Your task to perform on an android device: all mails in gmail Image 0: 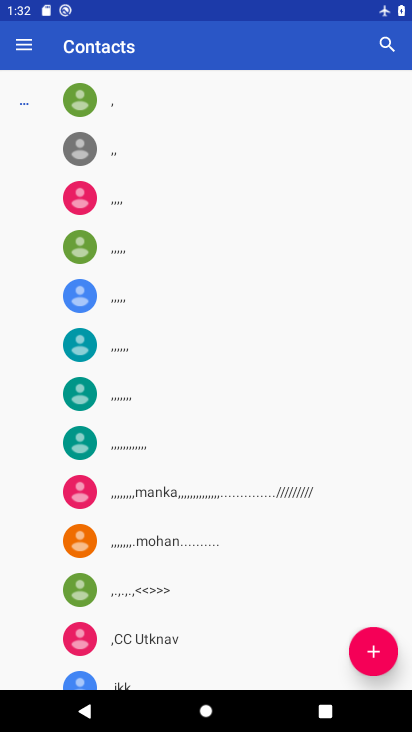
Step 0: press home button
Your task to perform on an android device: all mails in gmail Image 1: 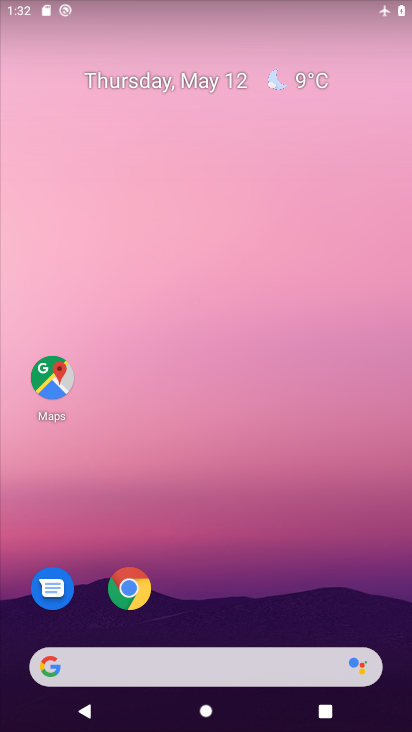
Step 1: drag from (340, 516) to (373, 90)
Your task to perform on an android device: all mails in gmail Image 2: 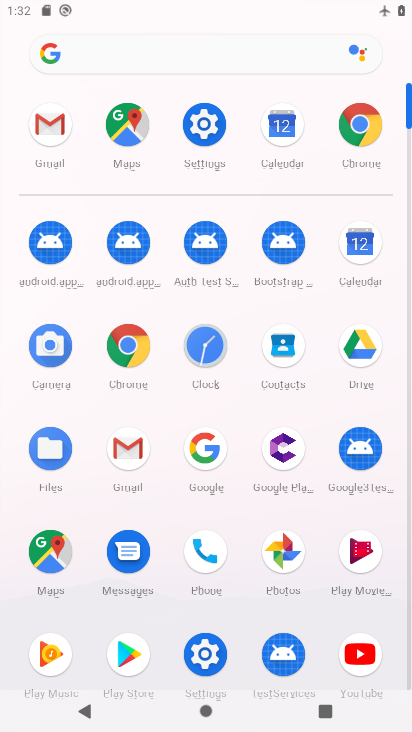
Step 2: click (54, 127)
Your task to perform on an android device: all mails in gmail Image 3: 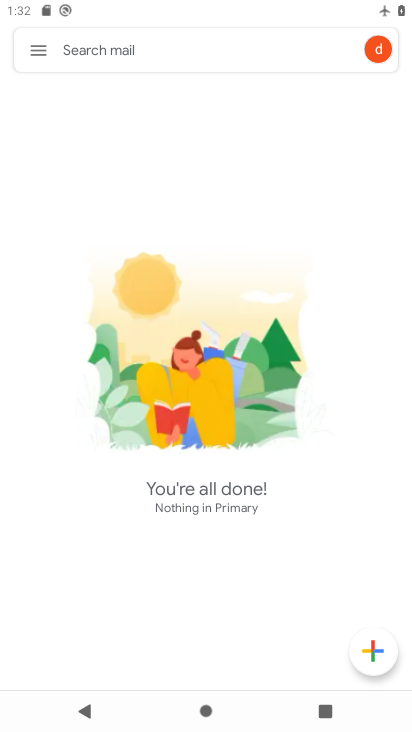
Step 3: click (44, 56)
Your task to perform on an android device: all mails in gmail Image 4: 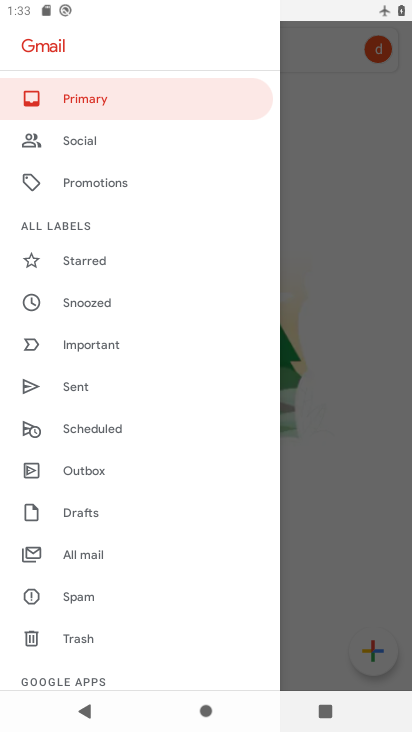
Step 4: click (74, 557)
Your task to perform on an android device: all mails in gmail Image 5: 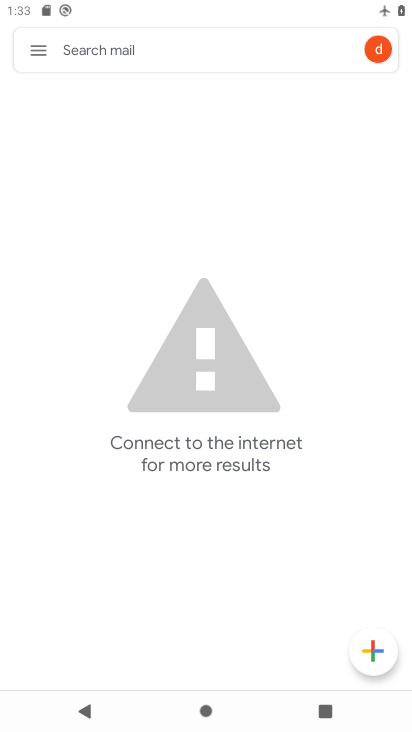
Step 5: task complete